Your task to perform on an android device: Open Yahoo.com Image 0: 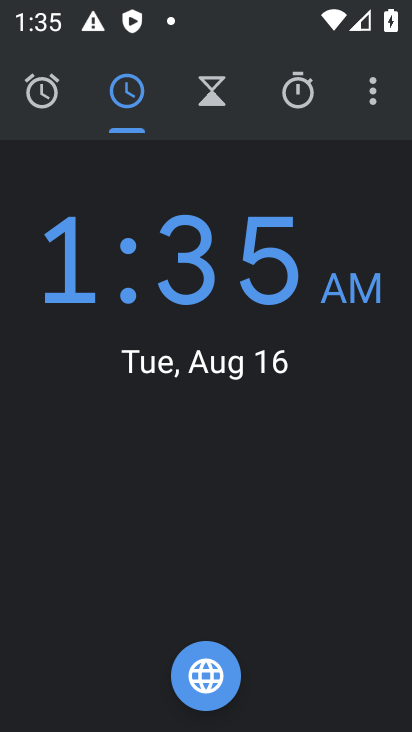
Step 0: press home button
Your task to perform on an android device: Open Yahoo.com Image 1: 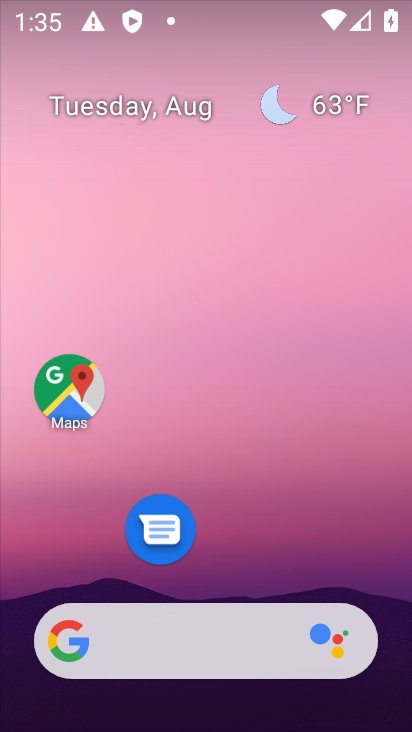
Step 1: drag from (224, 579) to (225, 208)
Your task to perform on an android device: Open Yahoo.com Image 2: 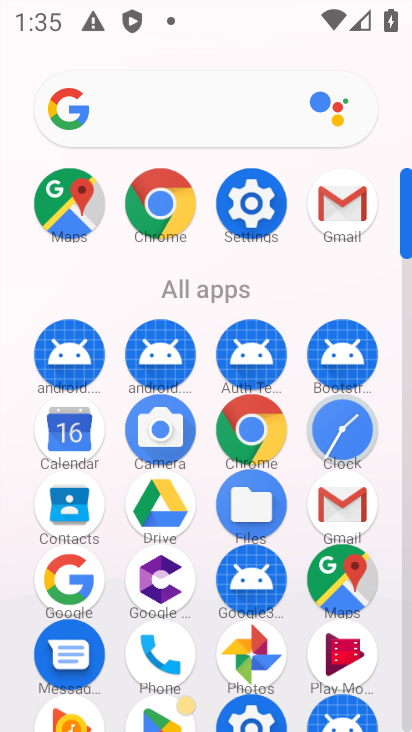
Step 2: click (177, 215)
Your task to perform on an android device: Open Yahoo.com Image 3: 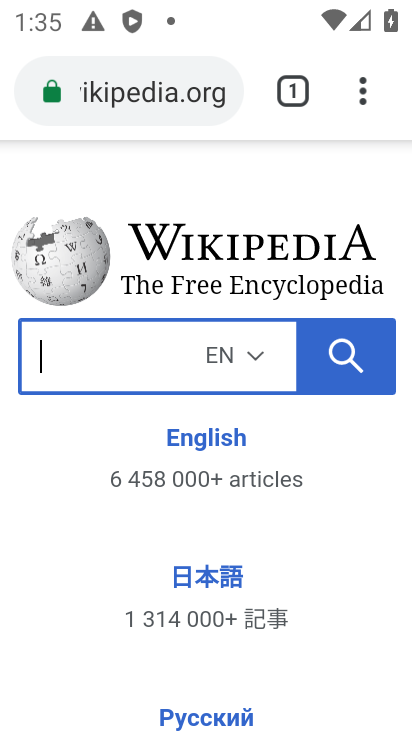
Step 3: click (195, 102)
Your task to perform on an android device: Open Yahoo.com Image 4: 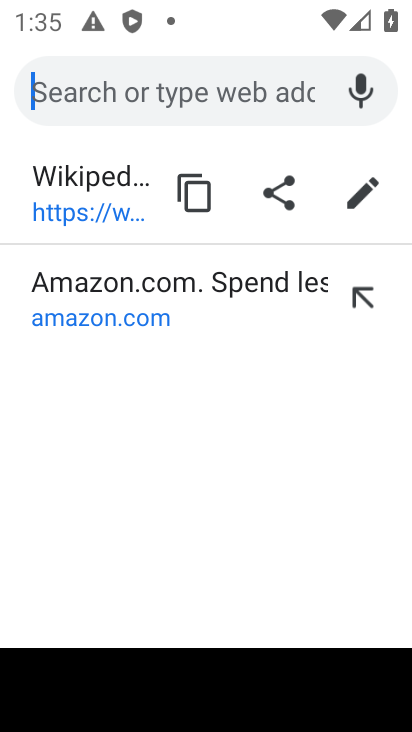
Step 4: type "yahoo.com"
Your task to perform on an android device: Open Yahoo.com Image 5: 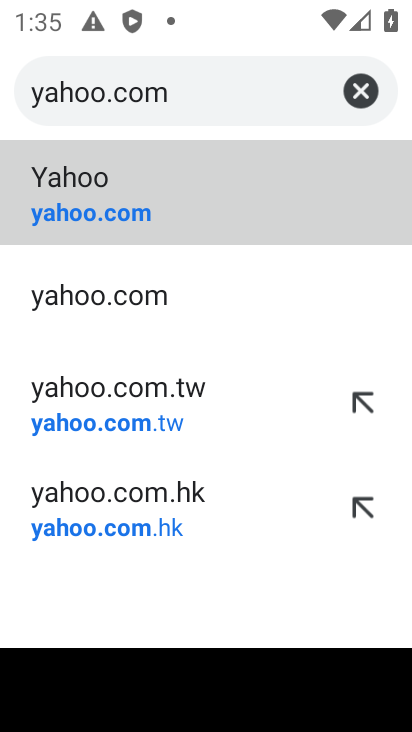
Step 5: click (102, 163)
Your task to perform on an android device: Open Yahoo.com Image 6: 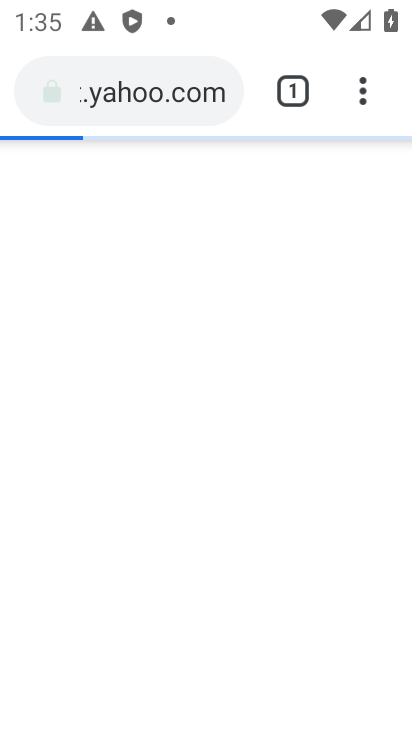
Step 6: task complete